Your task to perform on an android device: Open display settings Image 0: 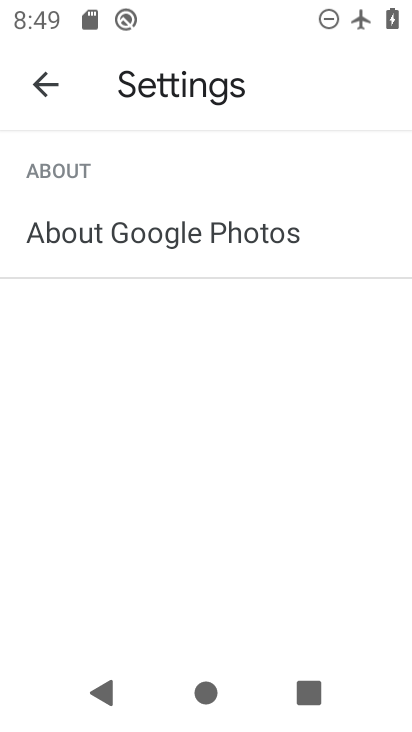
Step 0: press home button
Your task to perform on an android device: Open display settings Image 1: 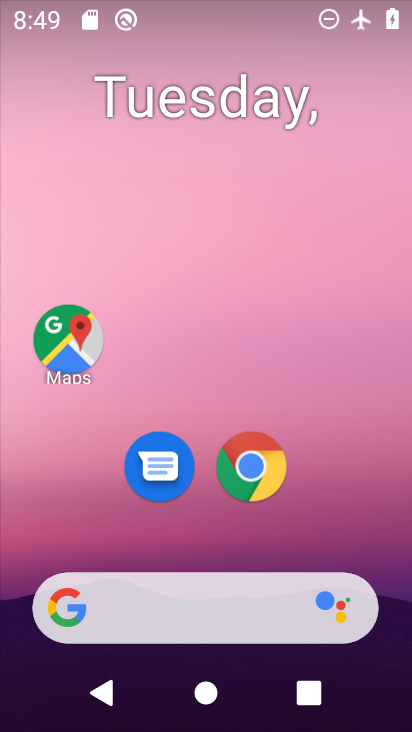
Step 1: drag from (230, 557) to (258, 131)
Your task to perform on an android device: Open display settings Image 2: 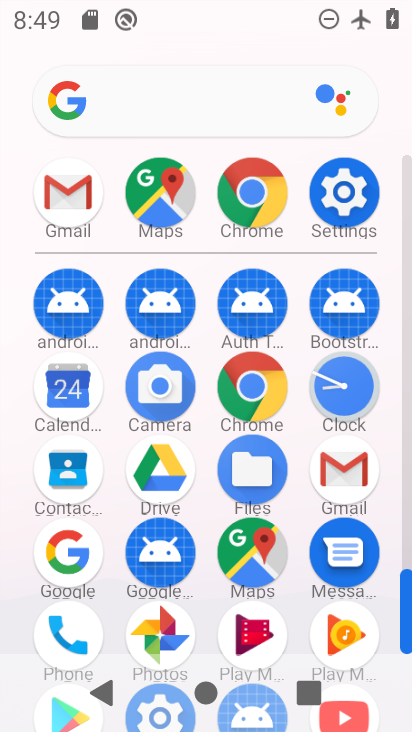
Step 2: click (355, 199)
Your task to perform on an android device: Open display settings Image 3: 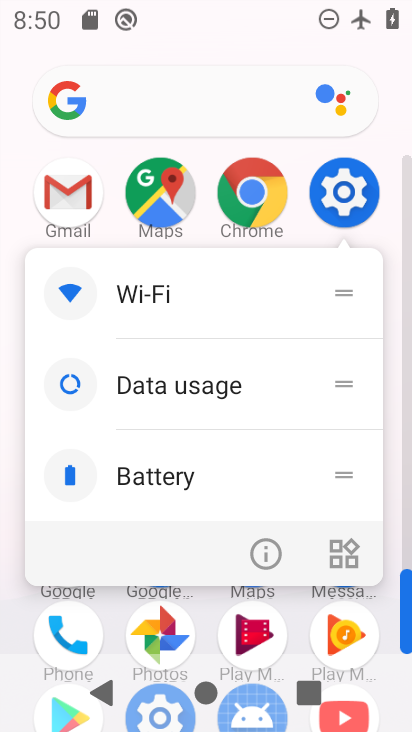
Step 3: click (334, 195)
Your task to perform on an android device: Open display settings Image 4: 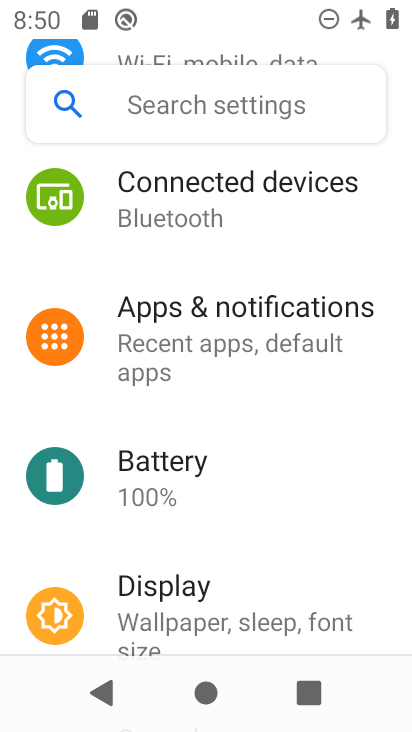
Step 4: click (184, 616)
Your task to perform on an android device: Open display settings Image 5: 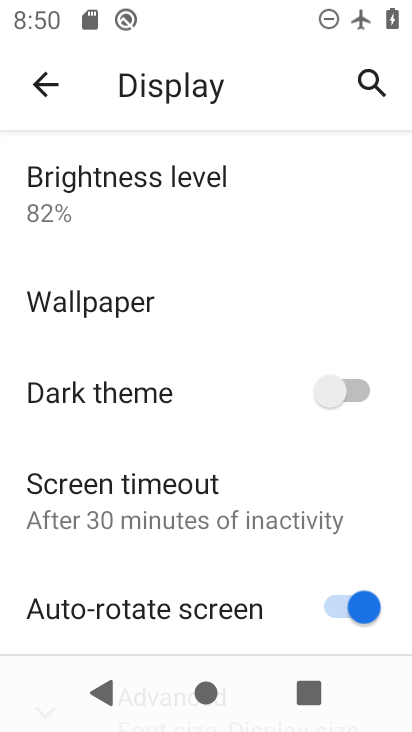
Step 5: task complete